Your task to perform on an android device: Open Wikipedia Image 0: 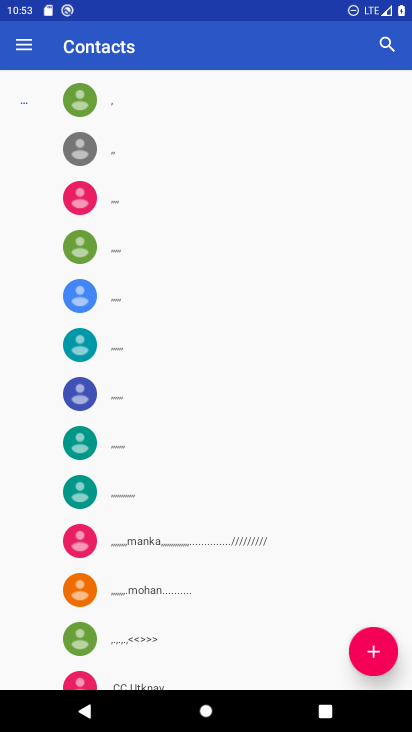
Step 0: press home button
Your task to perform on an android device: Open Wikipedia Image 1: 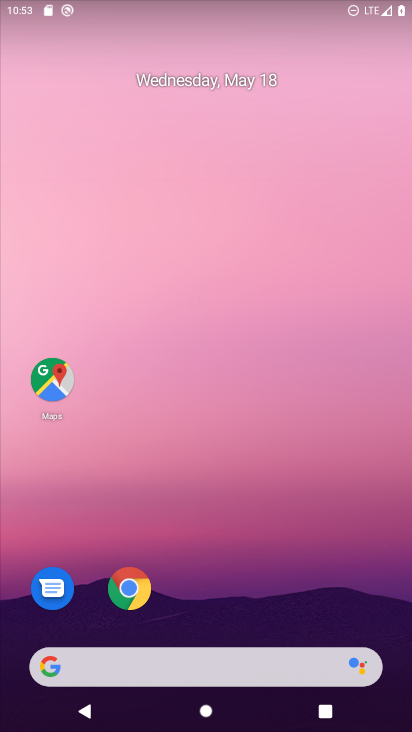
Step 1: click (133, 587)
Your task to perform on an android device: Open Wikipedia Image 2: 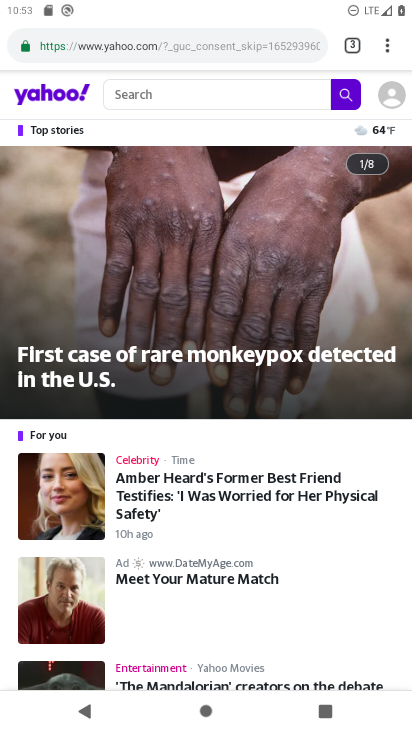
Step 2: click (86, 55)
Your task to perform on an android device: Open Wikipedia Image 3: 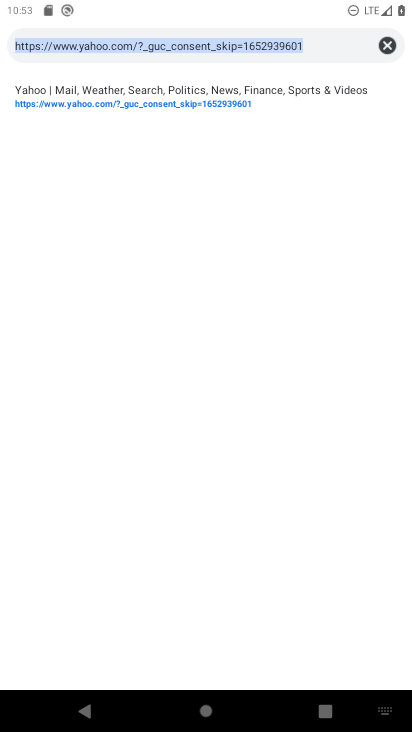
Step 3: click (387, 45)
Your task to perform on an android device: Open Wikipedia Image 4: 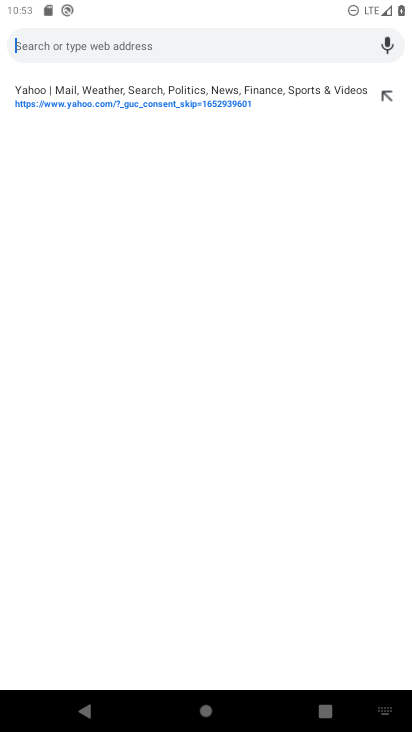
Step 4: type "wikipedia"
Your task to perform on an android device: Open Wikipedia Image 5: 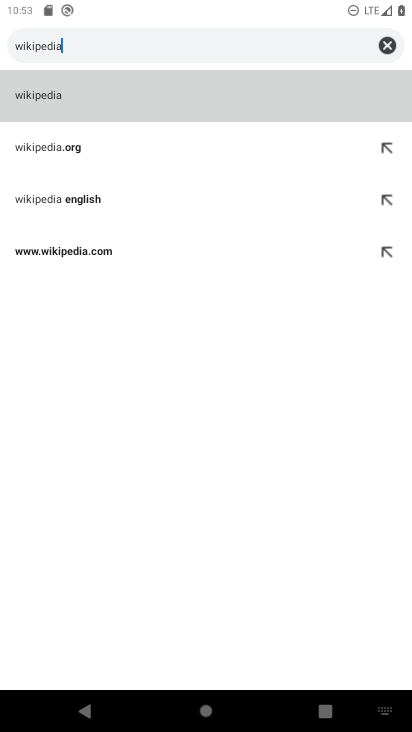
Step 5: click (43, 154)
Your task to perform on an android device: Open Wikipedia Image 6: 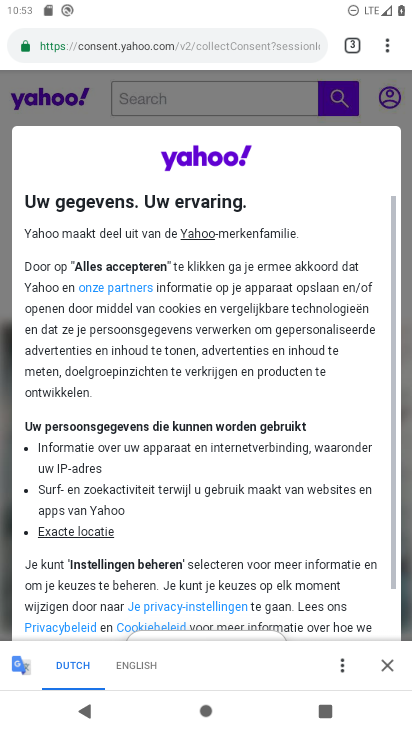
Step 6: click (110, 50)
Your task to perform on an android device: Open Wikipedia Image 7: 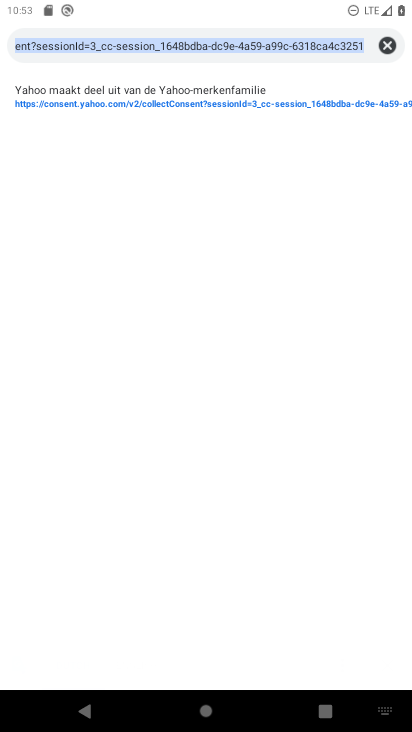
Step 7: click (109, 46)
Your task to perform on an android device: Open Wikipedia Image 8: 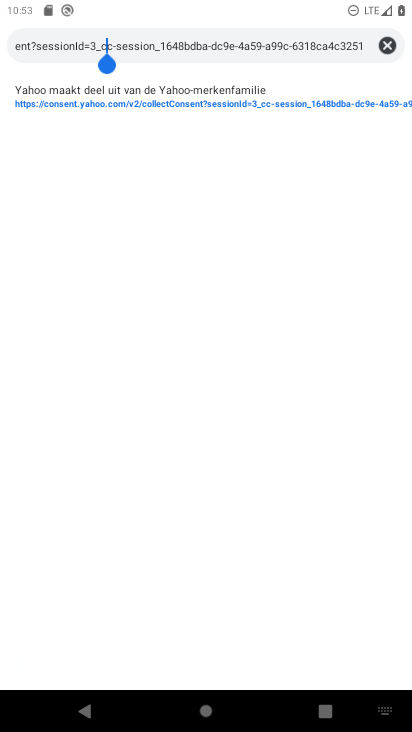
Step 8: click (386, 48)
Your task to perform on an android device: Open Wikipedia Image 9: 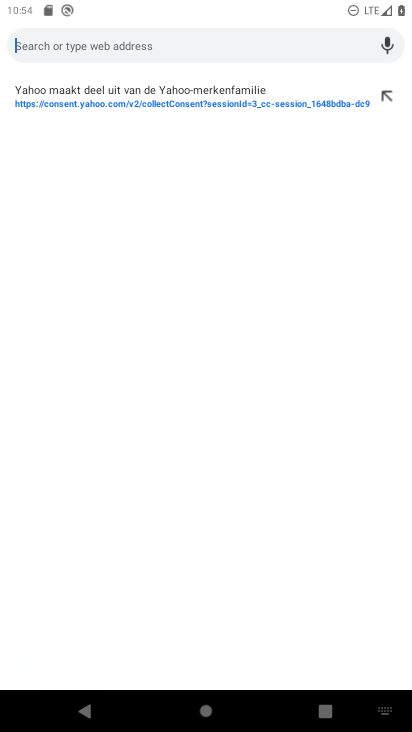
Step 9: type "wikipedia"
Your task to perform on an android device: Open Wikipedia Image 10: 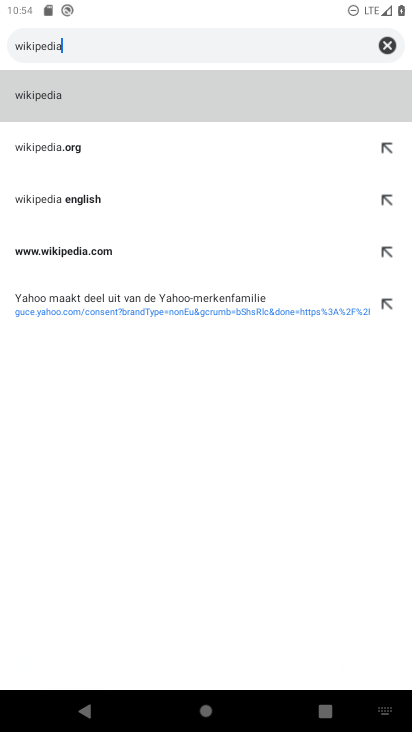
Step 10: click (57, 250)
Your task to perform on an android device: Open Wikipedia Image 11: 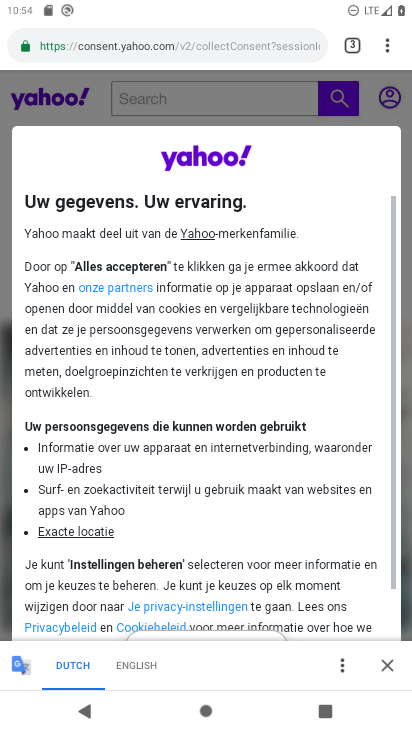
Step 11: task complete